Your task to perform on an android device: turn notification dots on Image 0: 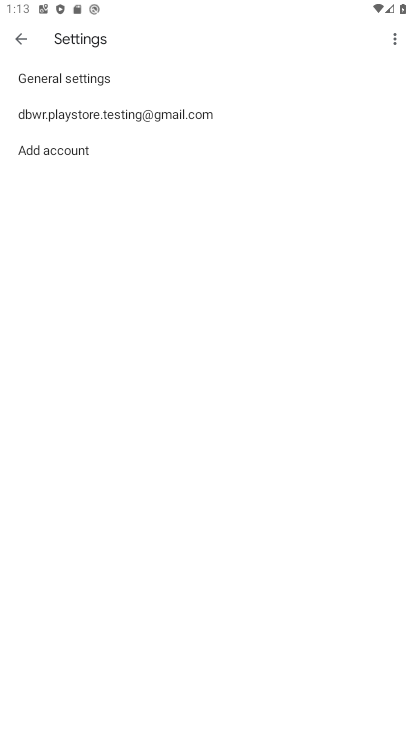
Step 0: press home button
Your task to perform on an android device: turn notification dots on Image 1: 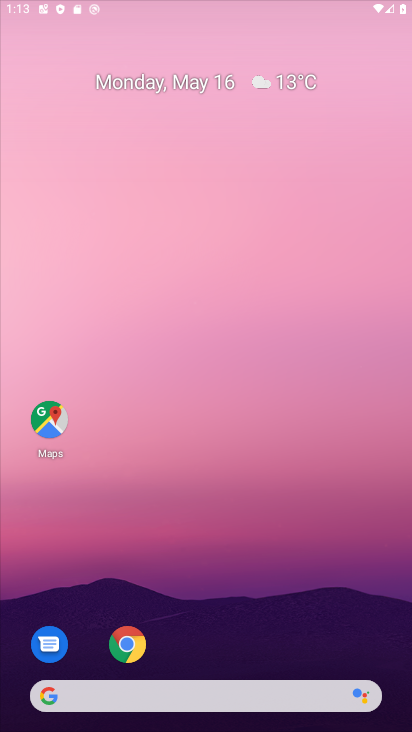
Step 1: drag from (196, 715) to (251, 228)
Your task to perform on an android device: turn notification dots on Image 2: 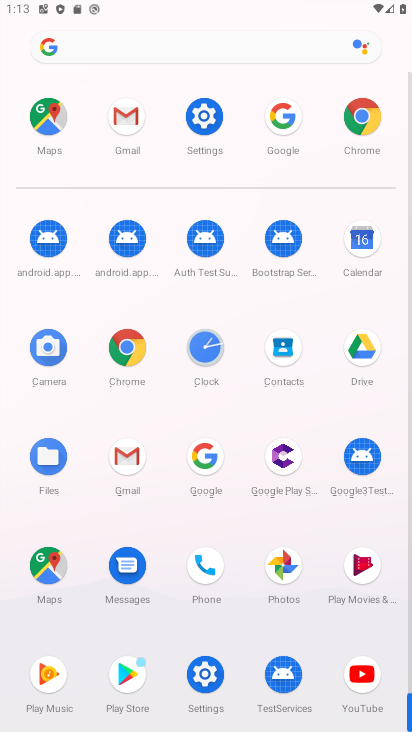
Step 2: click (217, 132)
Your task to perform on an android device: turn notification dots on Image 3: 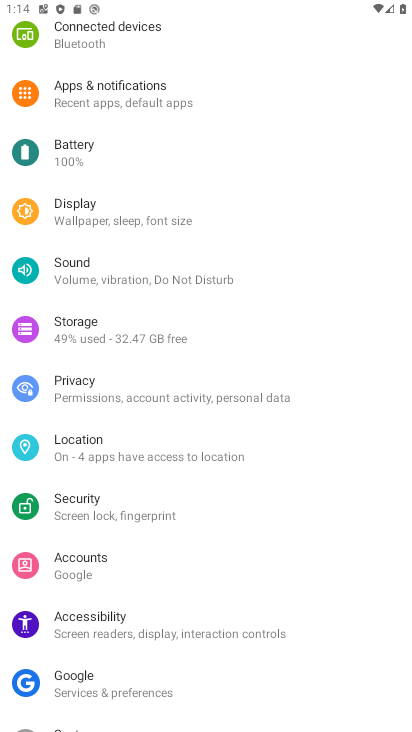
Step 3: drag from (122, 225) to (88, 499)
Your task to perform on an android device: turn notification dots on Image 4: 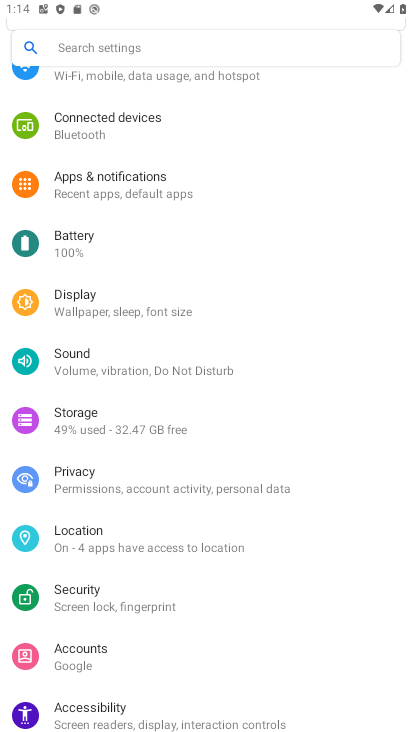
Step 4: click (187, 192)
Your task to perform on an android device: turn notification dots on Image 5: 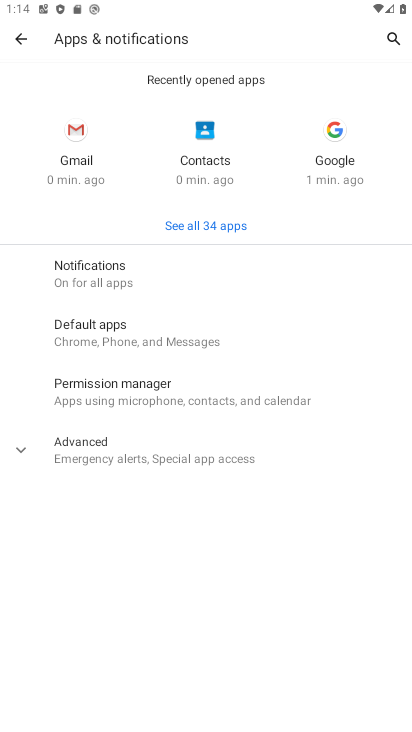
Step 5: click (136, 469)
Your task to perform on an android device: turn notification dots on Image 6: 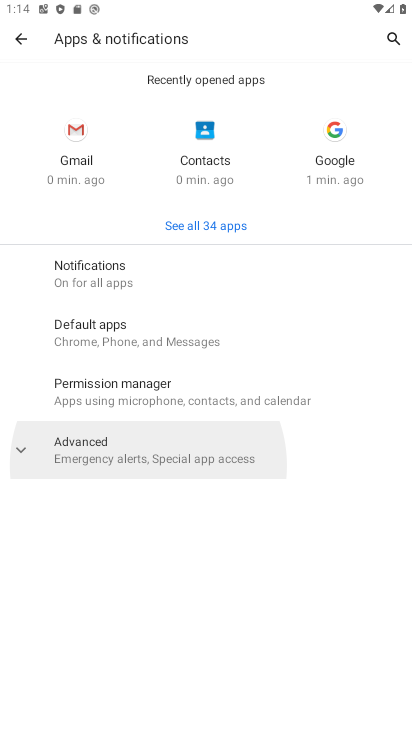
Step 6: drag from (136, 470) to (161, 278)
Your task to perform on an android device: turn notification dots on Image 7: 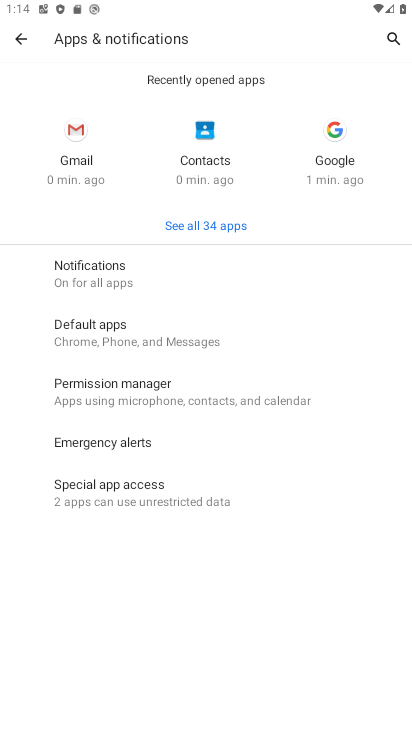
Step 7: click (161, 278)
Your task to perform on an android device: turn notification dots on Image 8: 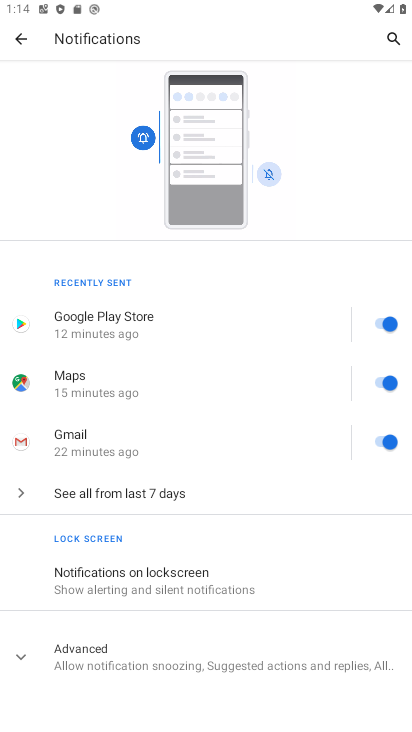
Step 8: drag from (160, 534) to (265, 161)
Your task to perform on an android device: turn notification dots on Image 9: 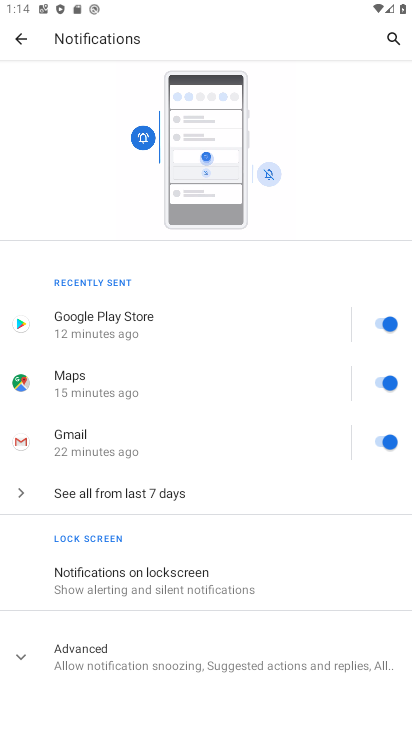
Step 9: click (143, 661)
Your task to perform on an android device: turn notification dots on Image 10: 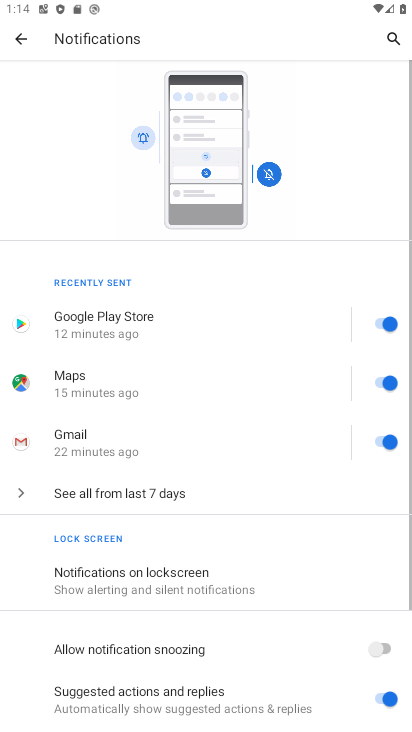
Step 10: task complete